Your task to perform on an android device: allow notifications from all sites in the chrome app Image 0: 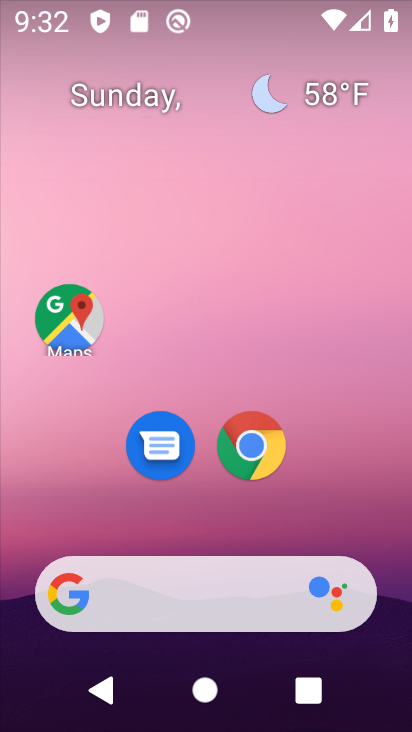
Step 0: click (247, 454)
Your task to perform on an android device: allow notifications from all sites in the chrome app Image 1: 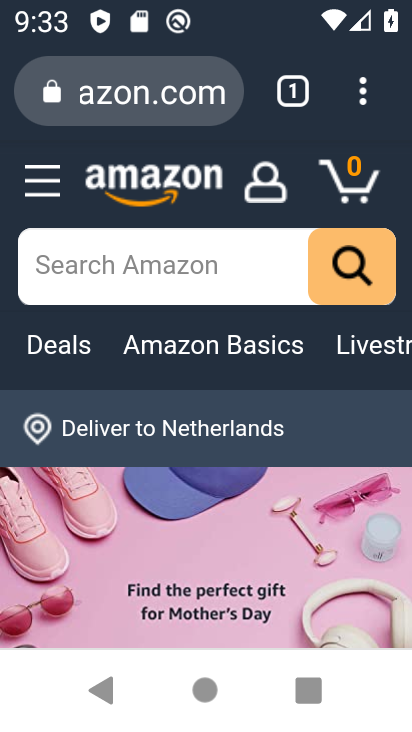
Step 1: drag from (369, 107) to (177, 476)
Your task to perform on an android device: allow notifications from all sites in the chrome app Image 2: 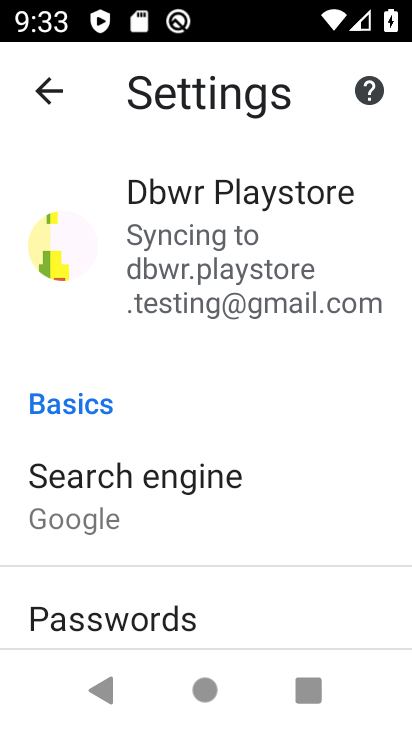
Step 2: drag from (163, 554) to (219, 136)
Your task to perform on an android device: allow notifications from all sites in the chrome app Image 3: 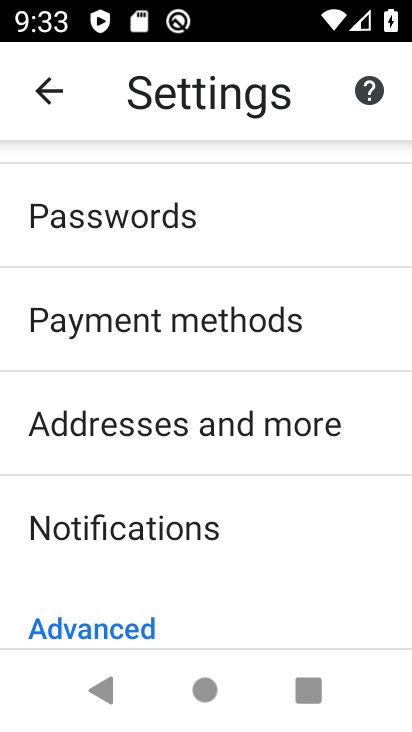
Step 3: drag from (144, 540) to (186, 140)
Your task to perform on an android device: allow notifications from all sites in the chrome app Image 4: 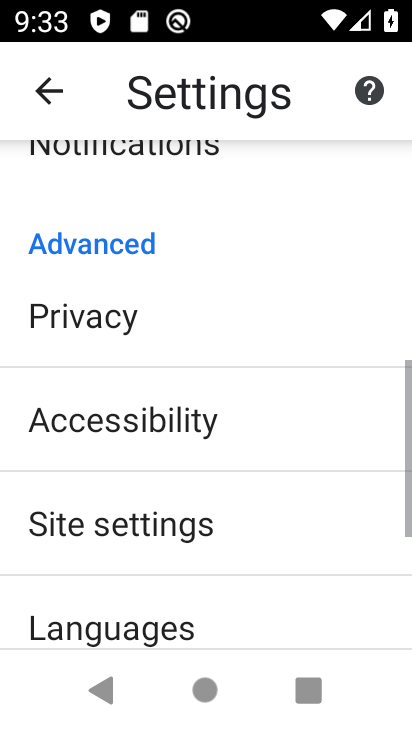
Step 4: click (186, 140)
Your task to perform on an android device: allow notifications from all sites in the chrome app Image 5: 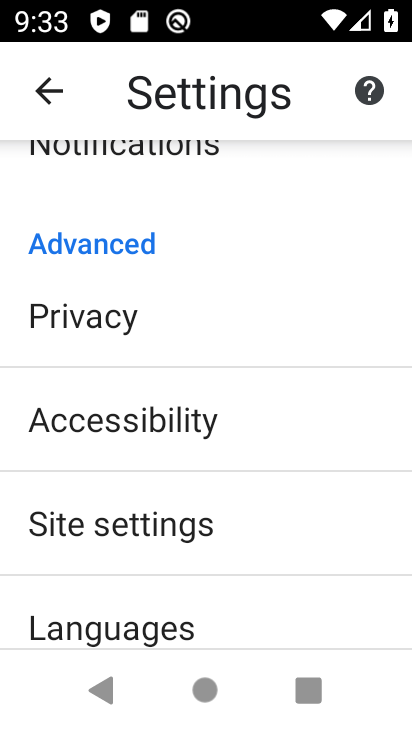
Step 5: click (184, 510)
Your task to perform on an android device: allow notifications from all sites in the chrome app Image 6: 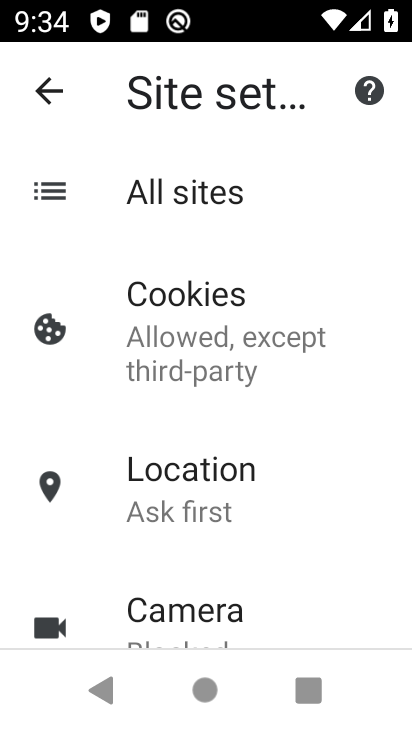
Step 6: drag from (164, 553) to (254, 14)
Your task to perform on an android device: allow notifications from all sites in the chrome app Image 7: 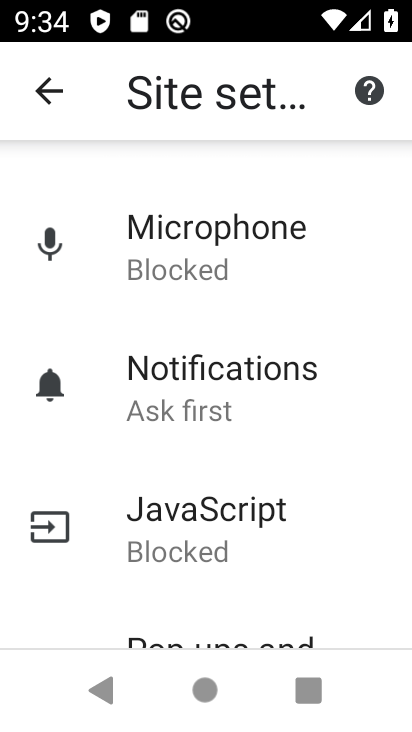
Step 7: click (185, 405)
Your task to perform on an android device: allow notifications from all sites in the chrome app Image 8: 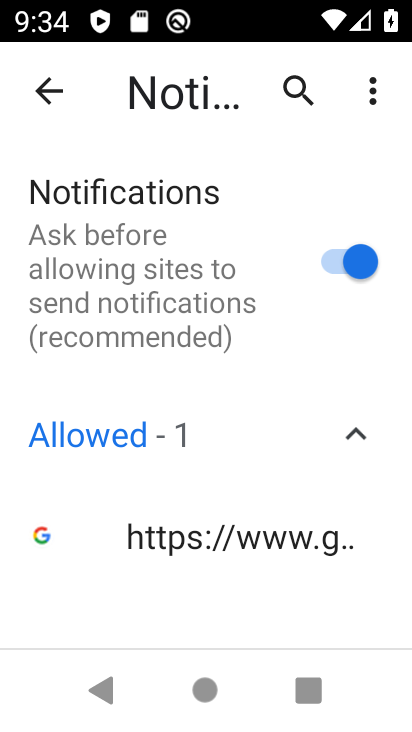
Step 8: task complete